Your task to perform on an android device: Go to Android settings Image 0: 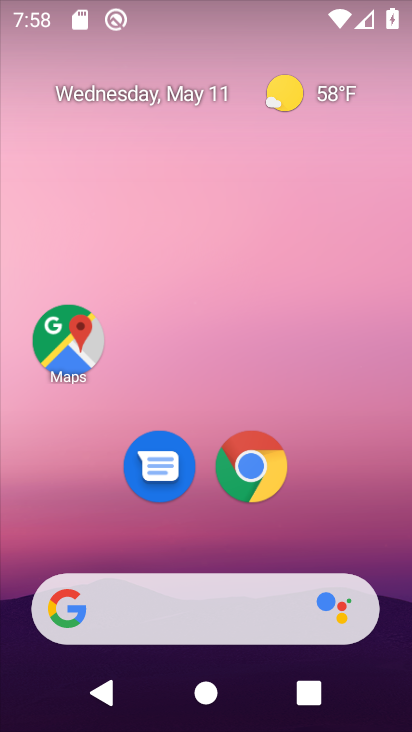
Step 0: drag from (213, 550) to (277, 50)
Your task to perform on an android device: Go to Android settings Image 1: 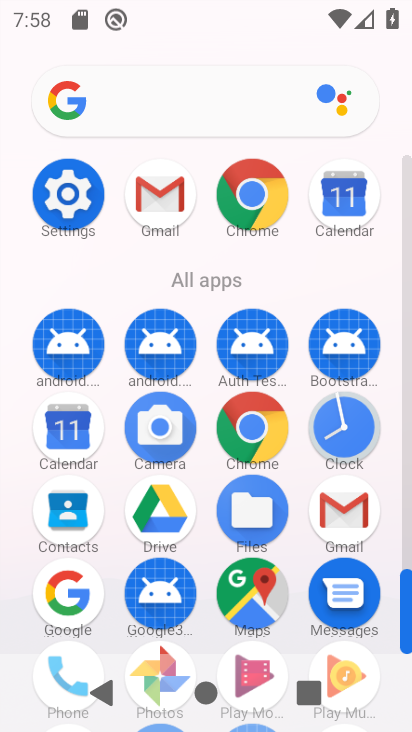
Step 1: click (79, 211)
Your task to perform on an android device: Go to Android settings Image 2: 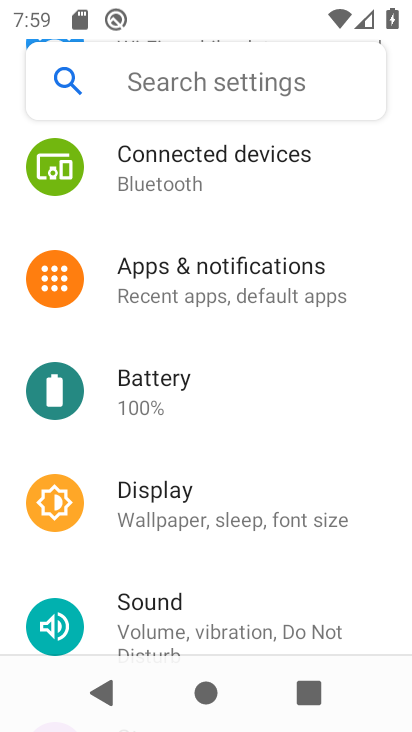
Step 2: drag from (147, 592) to (186, 354)
Your task to perform on an android device: Go to Android settings Image 3: 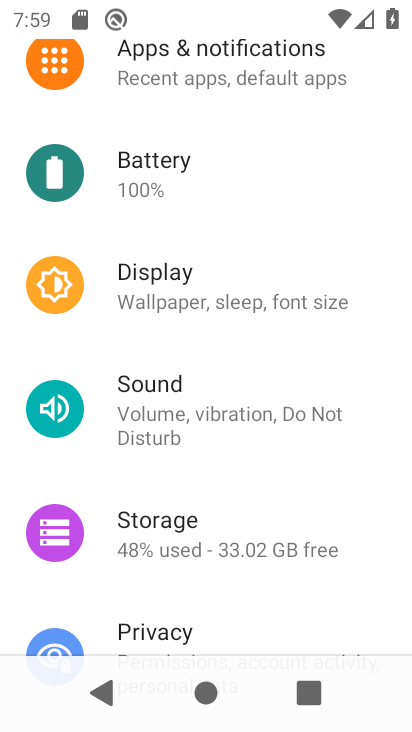
Step 3: drag from (154, 524) to (229, 253)
Your task to perform on an android device: Go to Android settings Image 4: 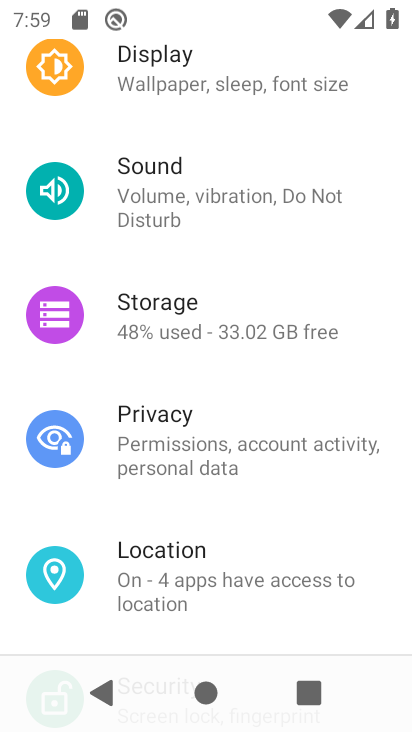
Step 4: drag from (268, 562) to (296, 174)
Your task to perform on an android device: Go to Android settings Image 5: 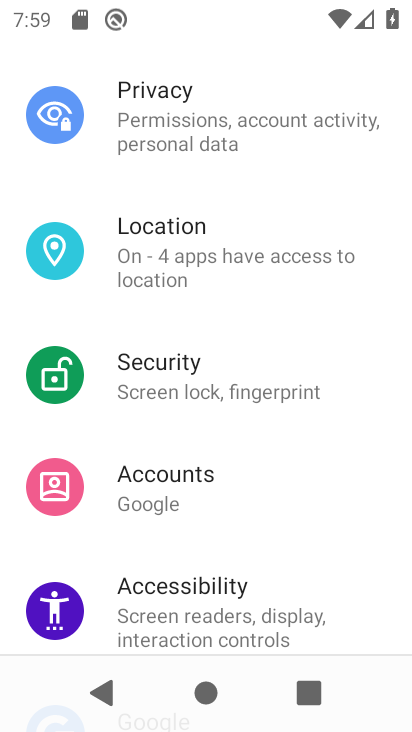
Step 5: drag from (193, 520) to (250, 140)
Your task to perform on an android device: Go to Android settings Image 6: 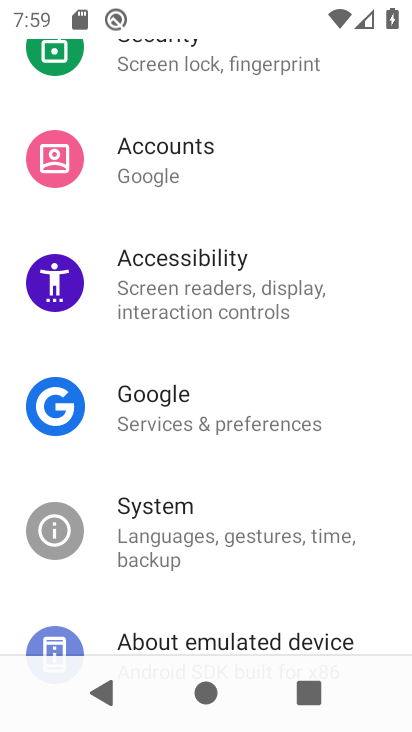
Step 6: click (204, 507)
Your task to perform on an android device: Go to Android settings Image 7: 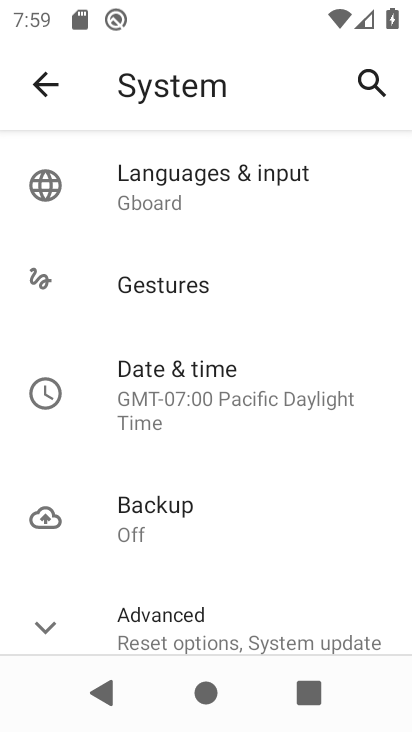
Step 7: task complete